Your task to perform on an android device: all mails in gmail Image 0: 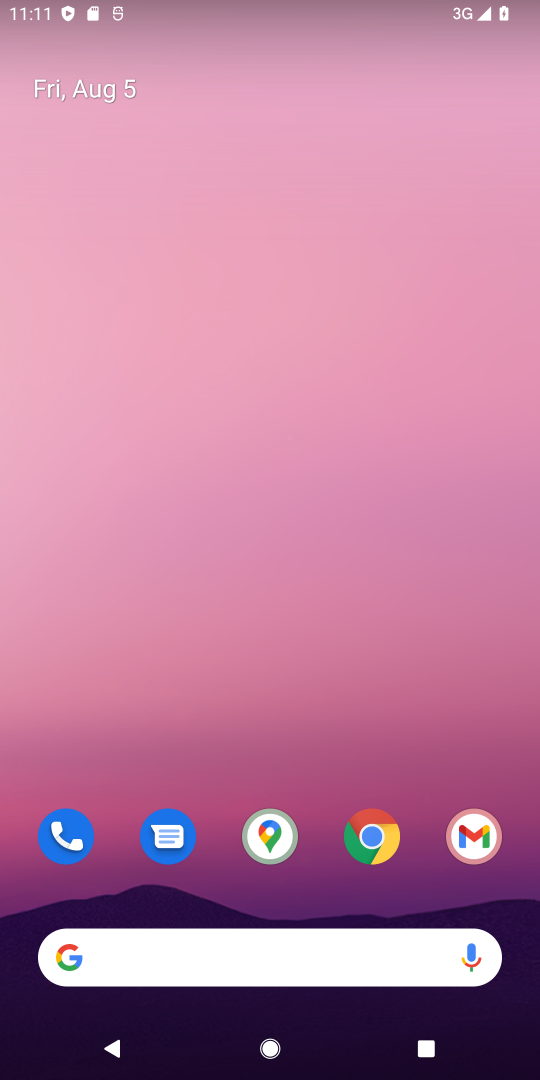
Step 0: drag from (315, 765) to (340, 12)
Your task to perform on an android device: all mails in gmail Image 1: 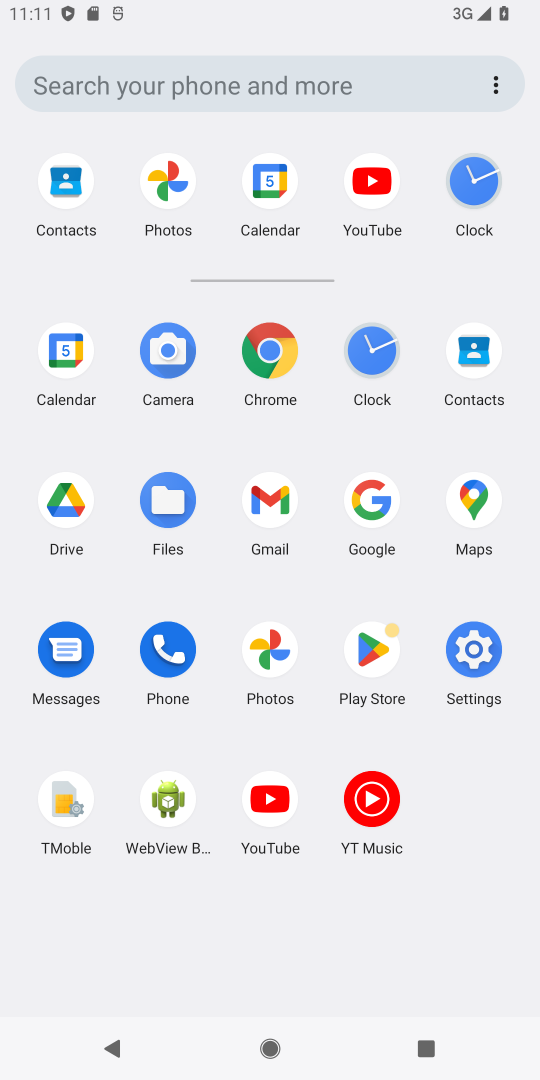
Step 1: click (274, 486)
Your task to perform on an android device: all mails in gmail Image 2: 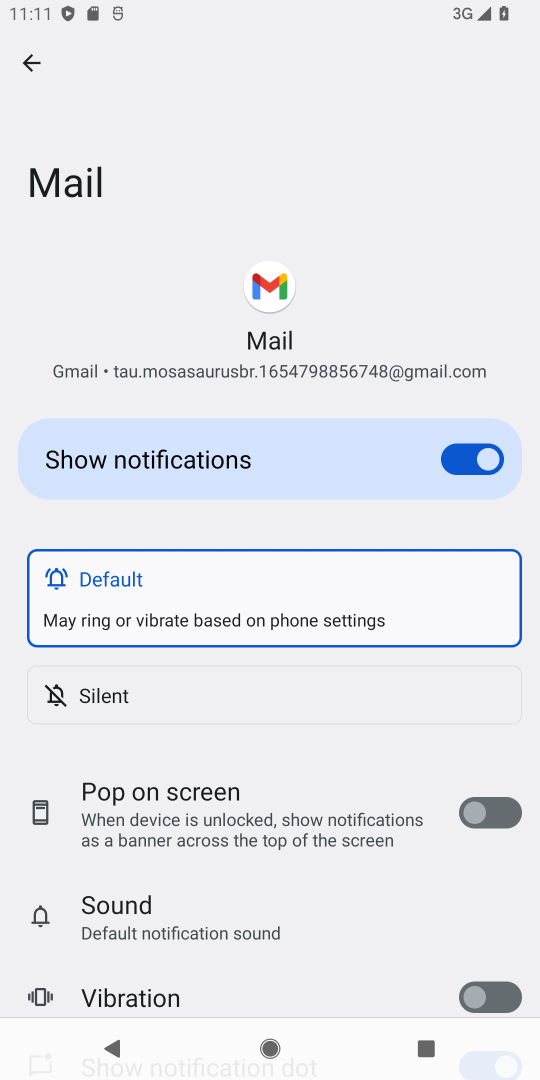
Step 2: task complete